Your task to perform on an android device: empty trash in the gmail app Image 0: 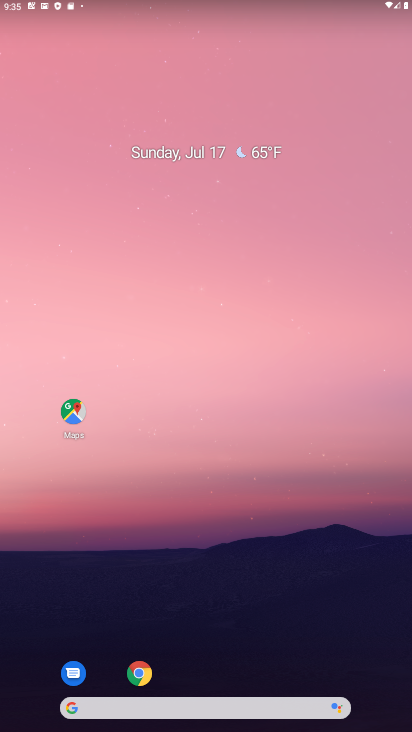
Step 0: drag from (246, 614) to (239, 152)
Your task to perform on an android device: empty trash in the gmail app Image 1: 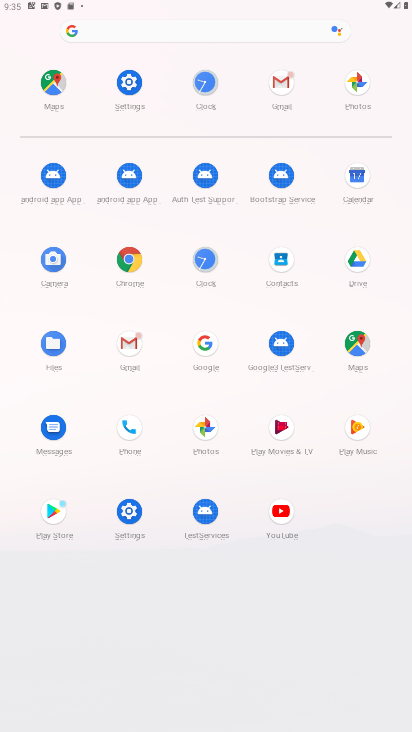
Step 1: click (289, 76)
Your task to perform on an android device: empty trash in the gmail app Image 2: 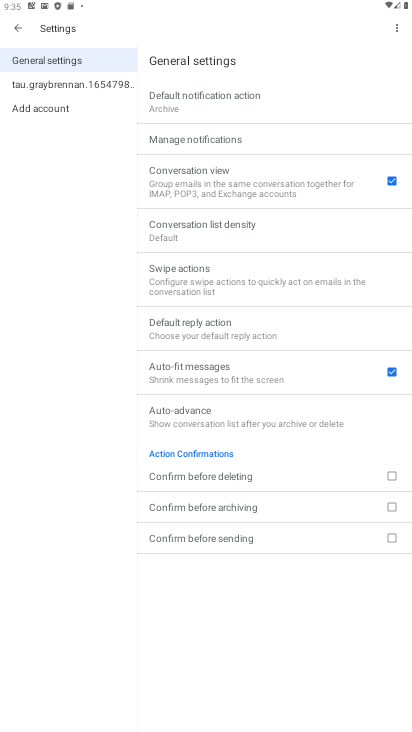
Step 2: click (12, 25)
Your task to perform on an android device: empty trash in the gmail app Image 3: 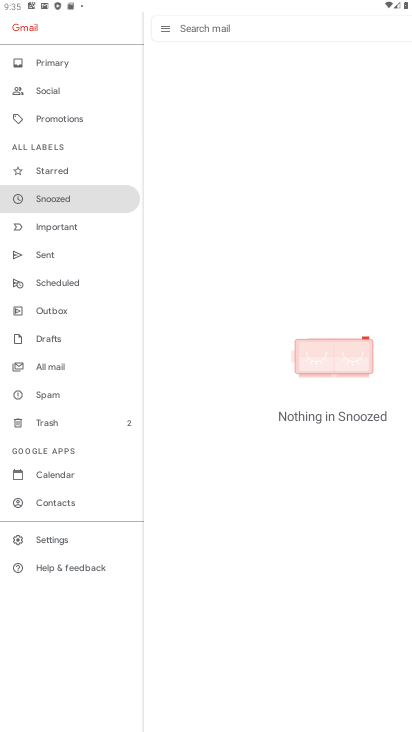
Step 3: click (60, 424)
Your task to perform on an android device: empty trash in the gmail app Image 4: 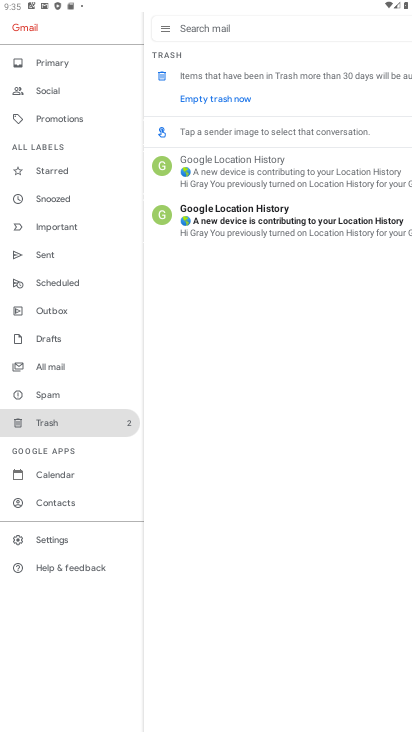
Step 4: click (201, 98)
Your task to perform on an android device: empty trash in the gmail app Image 5: 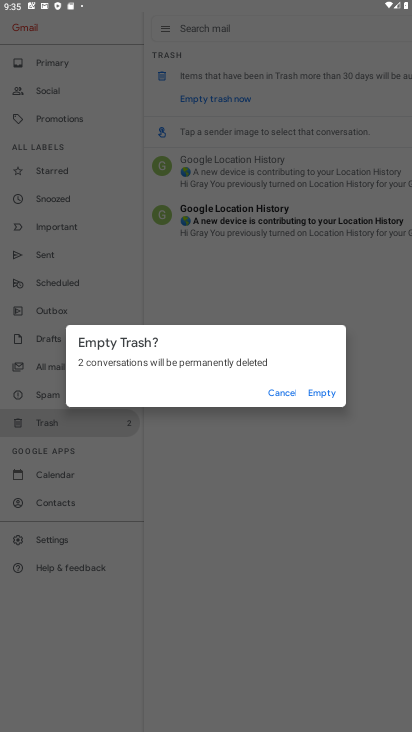
Step 5: click (317, 394)
Your task to perform on an android device: empty trash in the gmail app Image 6: 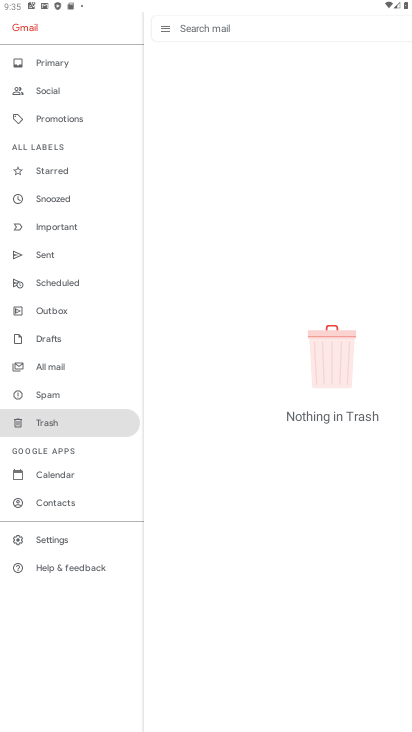
Step 6: task complete